Your task to perform on an android device: Go to wifi settings Image 0: 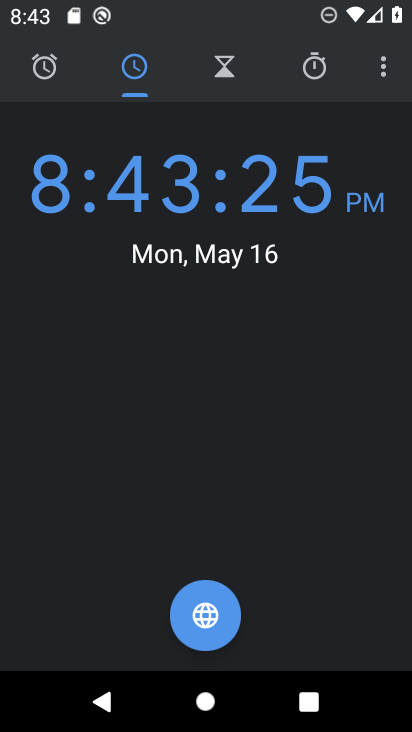
Step 0: press home button
Your task to perform on an android device: Go to wifi settings Image 1: 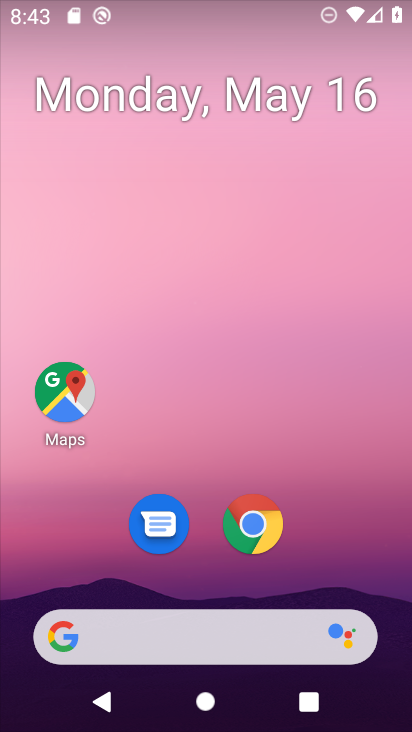
Step 1: drag from (316, 525) to (305, 22)
Your task to perform on an android device: Go to wifi settings Image 2: 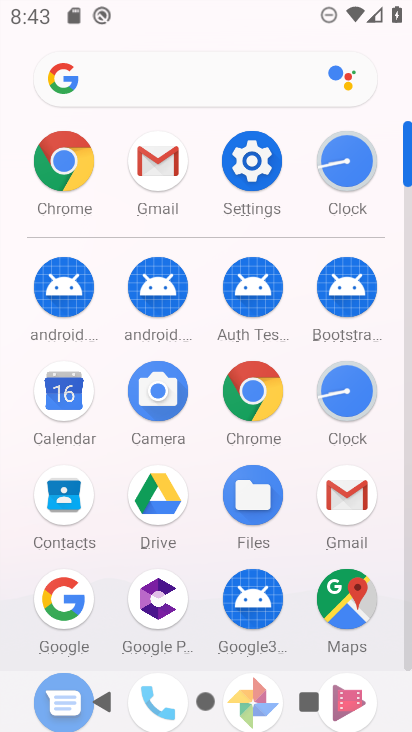
Step 2: click (259, 153)
Your task to perform on an android device: Go to wifi settings Image 3: 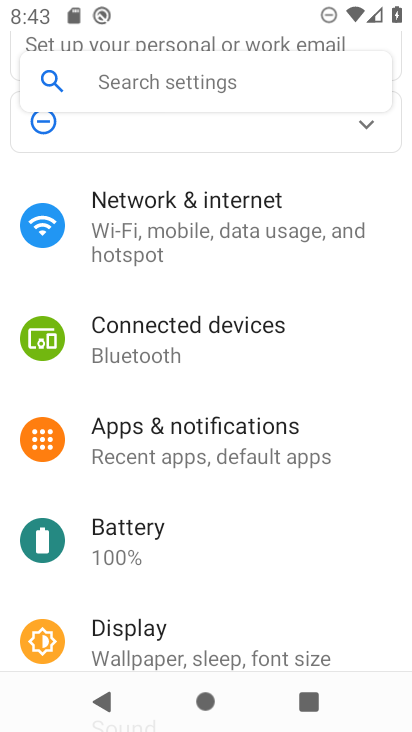
Step 3: click (246, 225)
Your task to perform on an android device: Go to wifi settings Image 4: 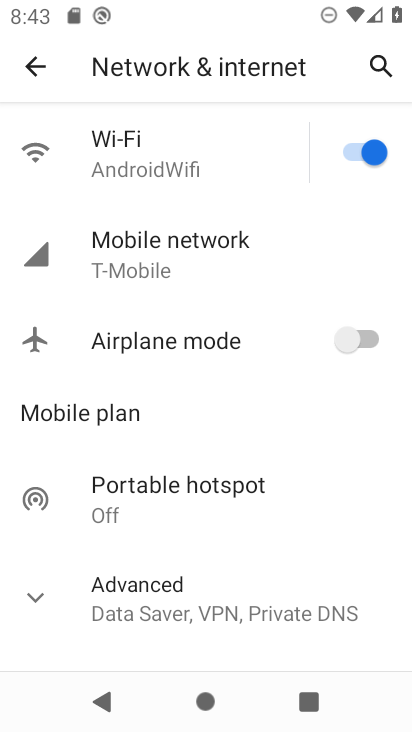
Step 4: click (179, 155)
Your task to perform on an android device: Go to wifi settings Image 5: 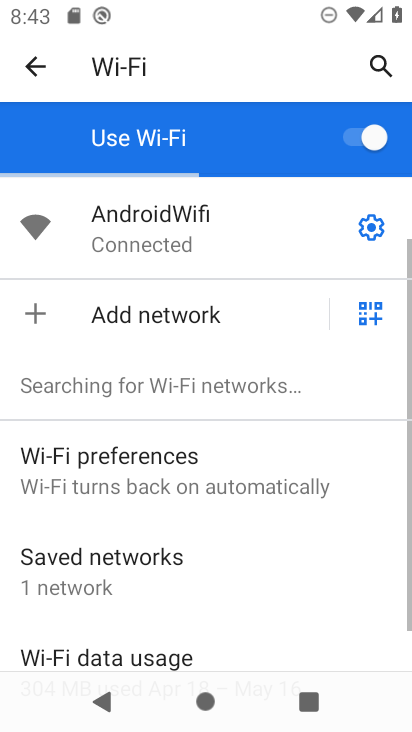
Step 5: task complete